Your task to perform on an android device: open chrome and create a bookmark for the current page Image 0: 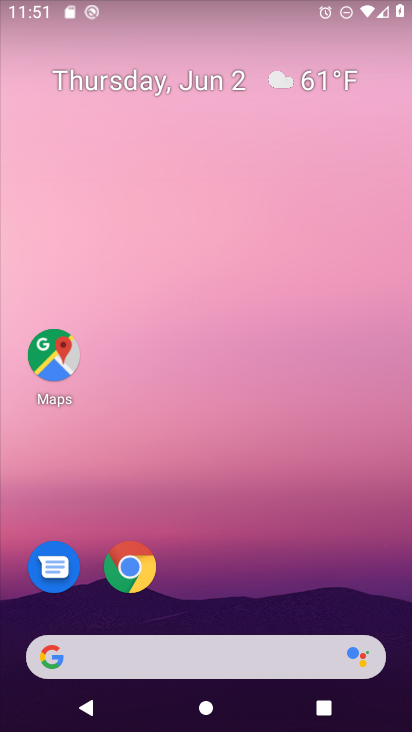
Step 0: click (131, 565)
Your task to perform on an android device: open chrome and create a bookmark for the current page Image 1: 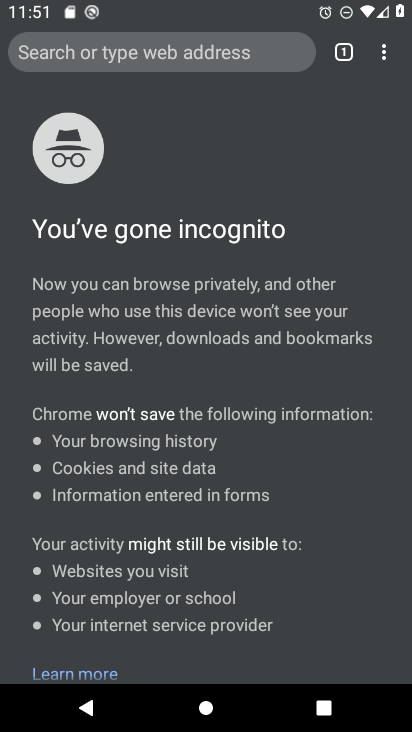
Step 1: task complete